Your task to perform on an android device: clear all cookies in the chrome app Image 0: 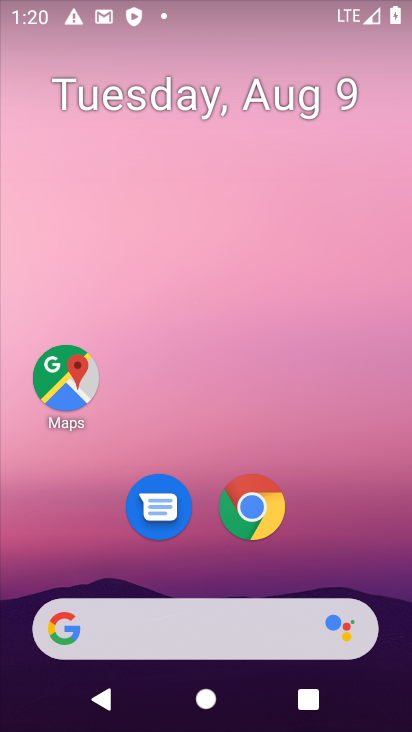
Step 0: click (271, 520)
Your task to perform on an android device: clear all cookies in the chrome app Image 1: 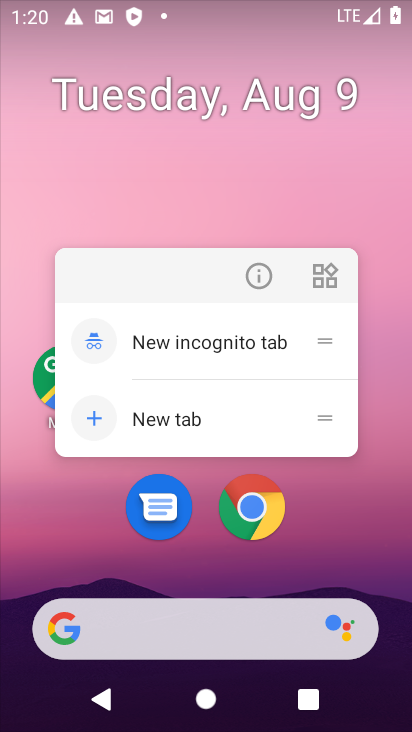
Step 1: click (256, 513)
Your task to perform on an android device: clear all cookies in the chrome app Image 2: 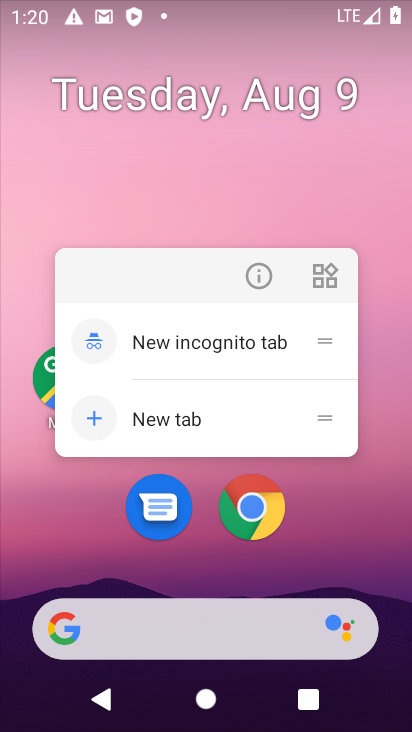
Step 2: click (256, 513)
Your task to perform on an android device: clear all cookies in the chrome app Image 3: 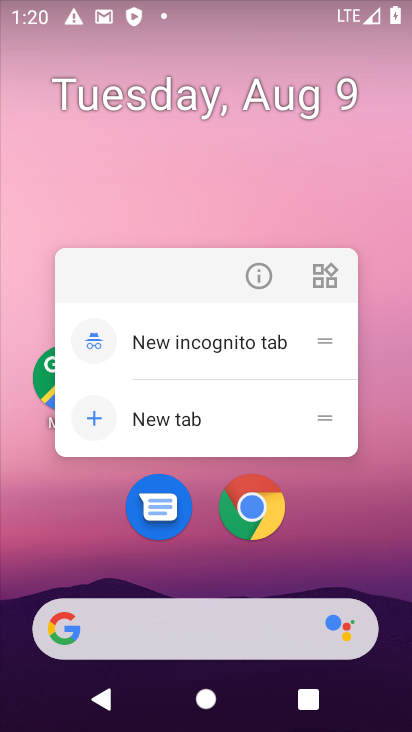
Step 3: click (275, 524)
Your task to perform on an android device: clear all cookies in the chrome app Image 4: 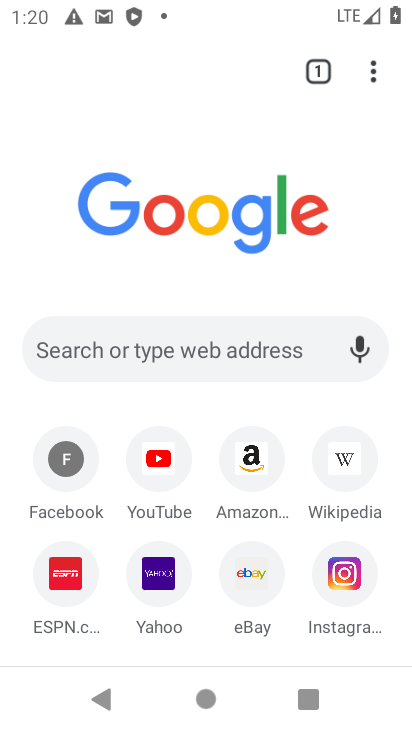
Step 4: click (384, 78)
Your task to perform on an android device: clear all cookies in the chrome app Image 5: 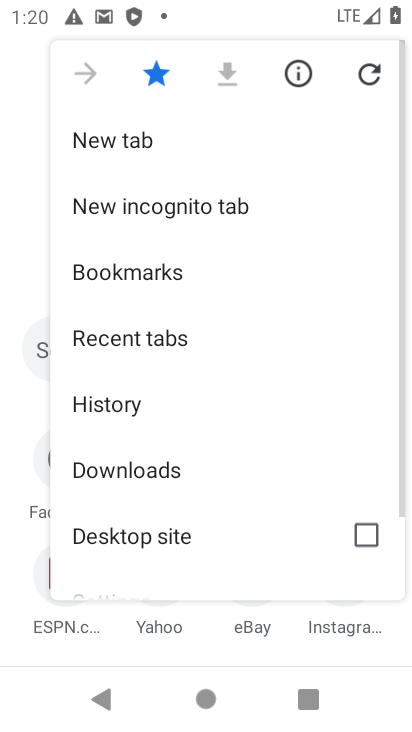
Step 5: click (150, 407)
Your task to perform on an android device: clear all cookies in the chrome app Image 6: 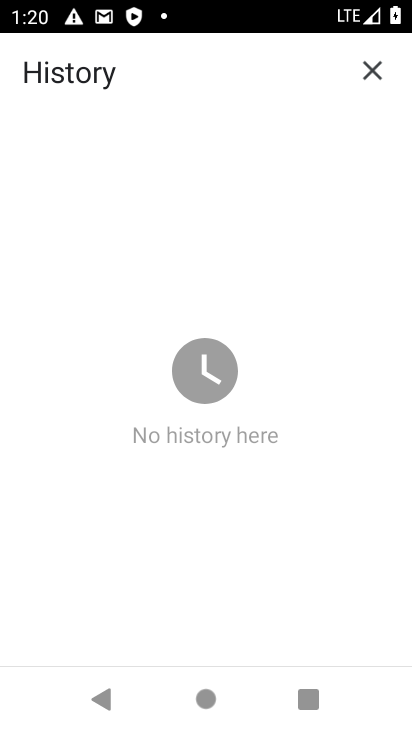
Step 6: task complete